Your task to perform on an android device: see sites visited before in the chrome app Image 0: 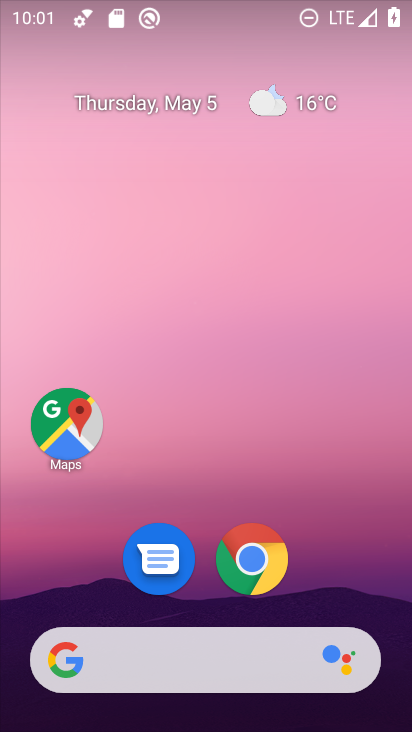
Step 0: drag from (395, 398) to (315, 46)
Your task to perform on an android device: see sites visited before in the chrome app Image 1: 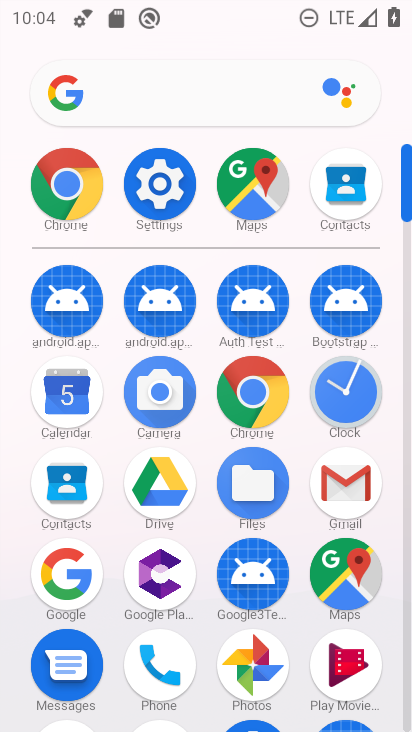
Step 1: click (268, 388)
Your task to perform on an android device: see sites visited before in the chrome app Image 2: 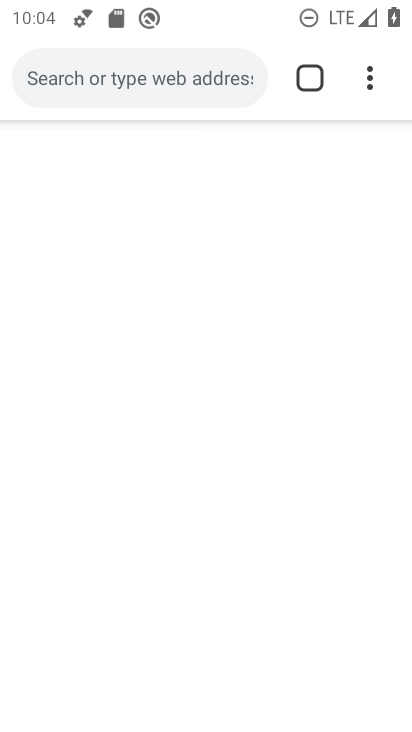
Step 2: click (364, 83)
Your task to perform on an android device: see sites visited before in the chrome app Image 3: 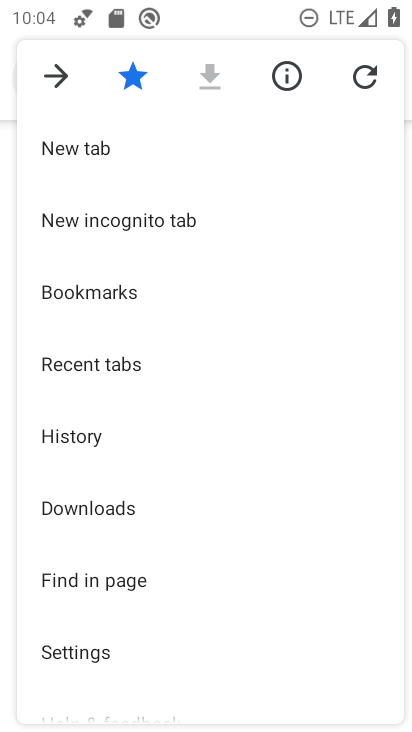
Step 3: click (98, 444)
Your task to perform on an android device: see sites visited before in the chrome app Image 4: 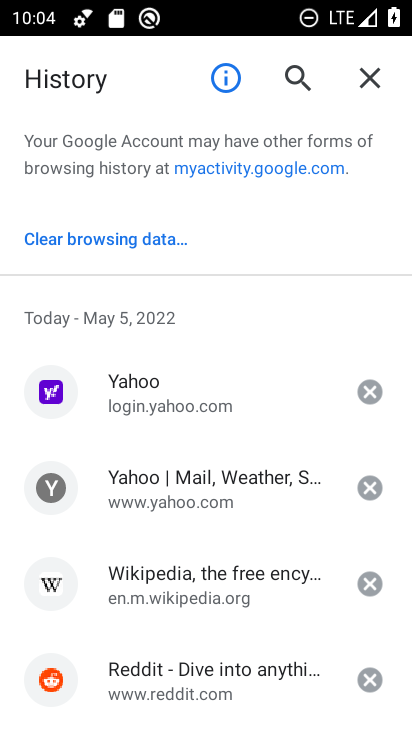
Step 4: click (175, 394)
Your task to perform on an android device: see sites visited before in the chrome app Image 5: 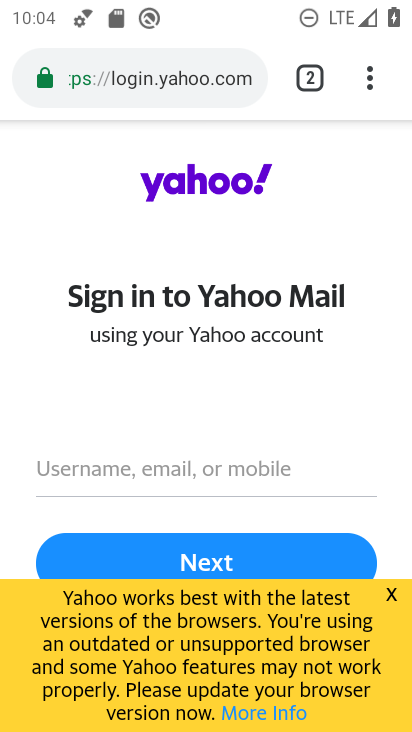
Step 5: task complete